Your task to perform on an android device: Turn on the flashlight Image 0: 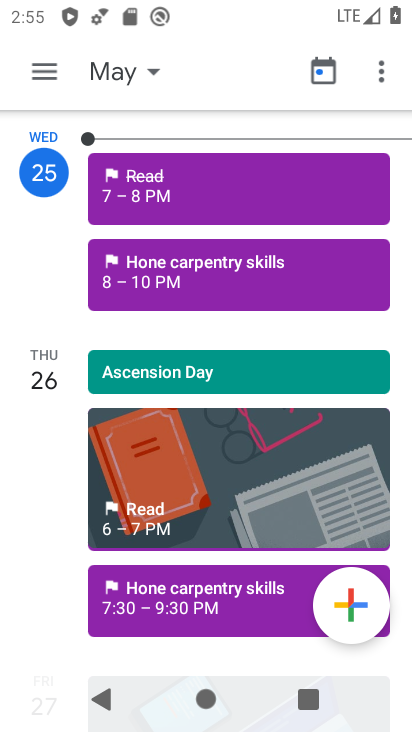
Step 0: press back button
Your task to perform on an android device: Turn on the flashlight Image 1: 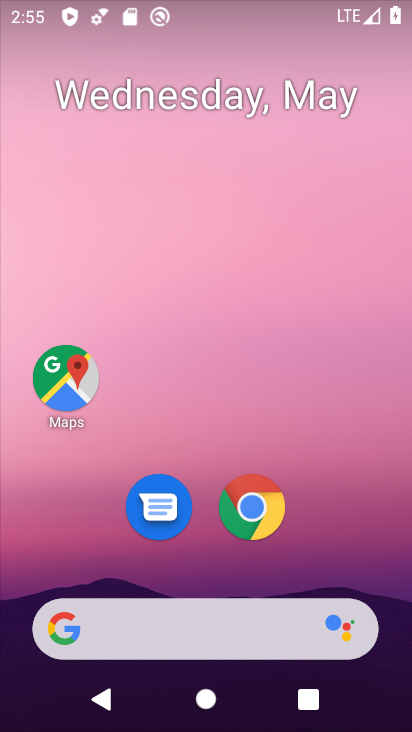
Step 1: drag from (323, 460) to (267, 27)
Your task to perform on an android device: Turn on the flashlight Image 2: 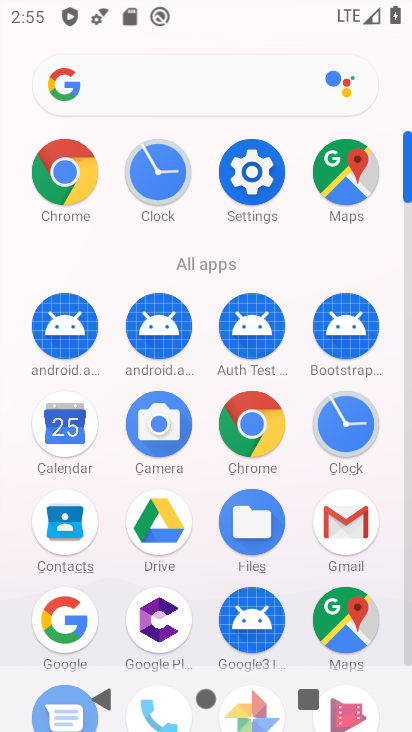
Step 2: drag from (11, 572) to (1, 283)
Your task to perform on an android device: Turn on the flashlight Image 3: 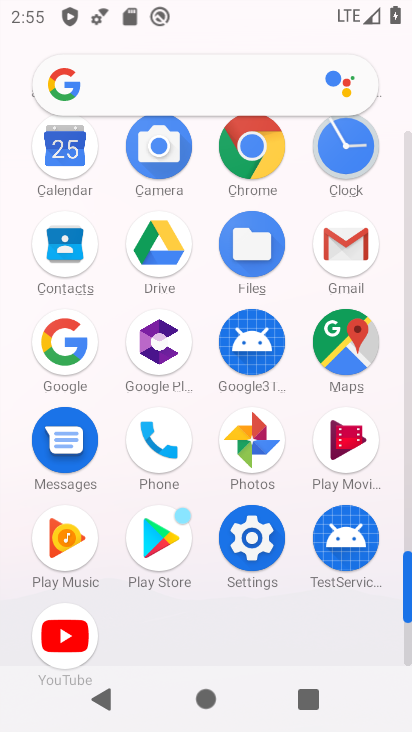
Step 3: click (249, 535)
Your task to perform on an android device: Turn on the flashlight Image 4: 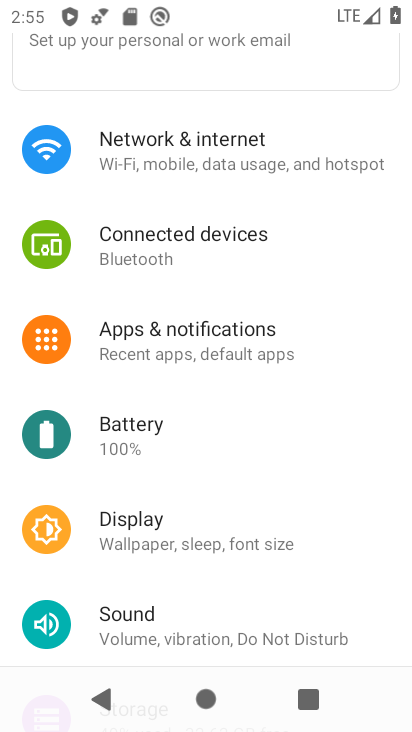
Step 4: click (215, 143)
Your task to perform on an android device: Turn on the flashlight Image 5: 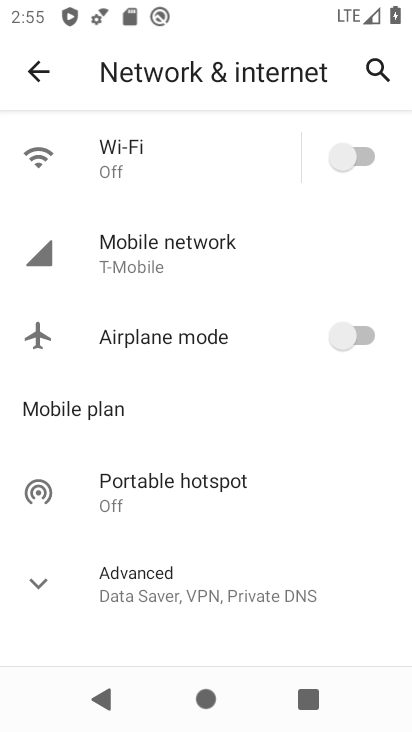
Step 5: click (52, 575)
Your task to perform on an android device: Turn on the flashlight Image 6: 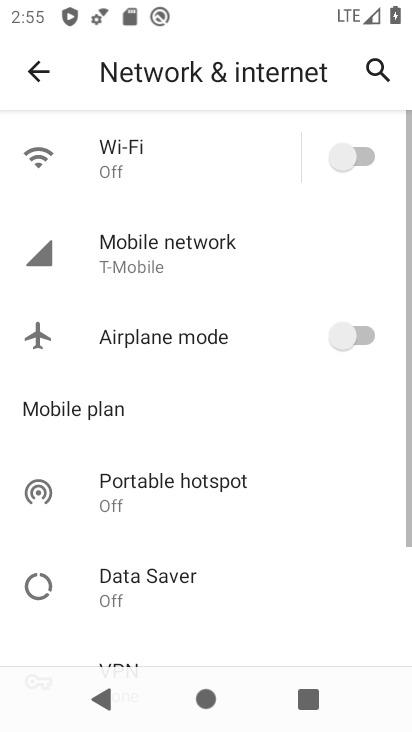
Step 6: task complete